Your task to perform on an android device: Open settings on Google Maps Image 0: 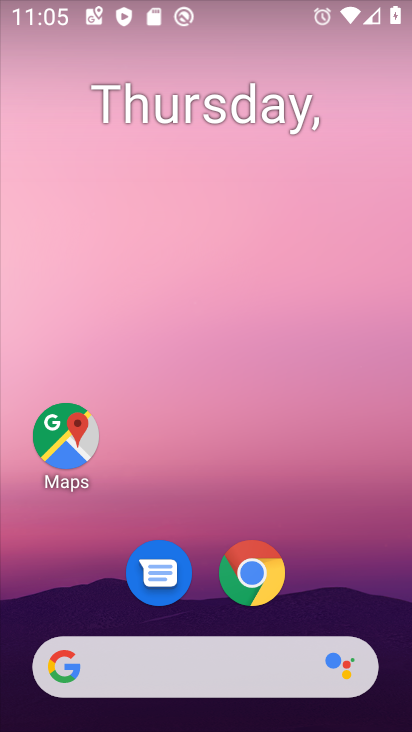
Step 0: click (82, 434)
Your task to perform on an android device: Open settings on Google Maps Image 1: 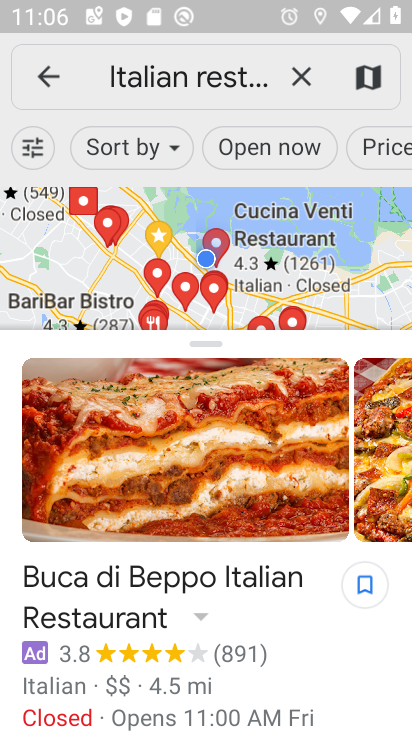
Step 1: task complete